Your task to perform on an android device: Open notification settings Image 0: 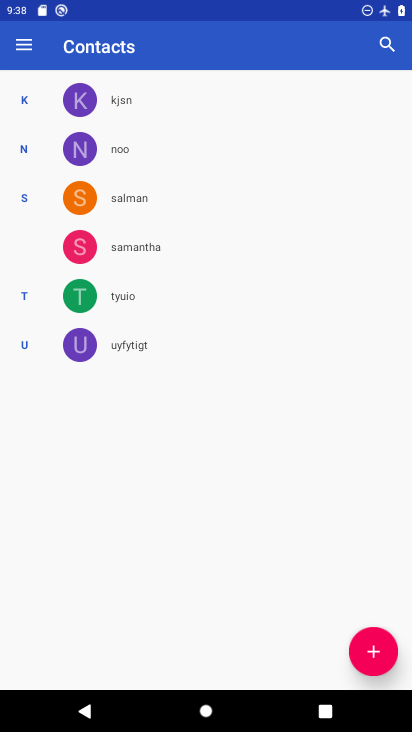
Step 0: drag from (164, 12) to (209, 555)
Your task to perform on an android device: Open notification settings Image 1: 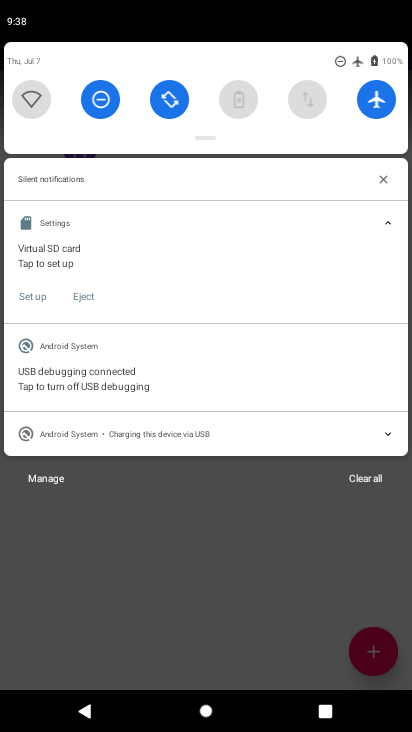
Step 1: drag from (198, 83) to (257, 685)
Your task to perform on an android device: Open notification settings Image 2: 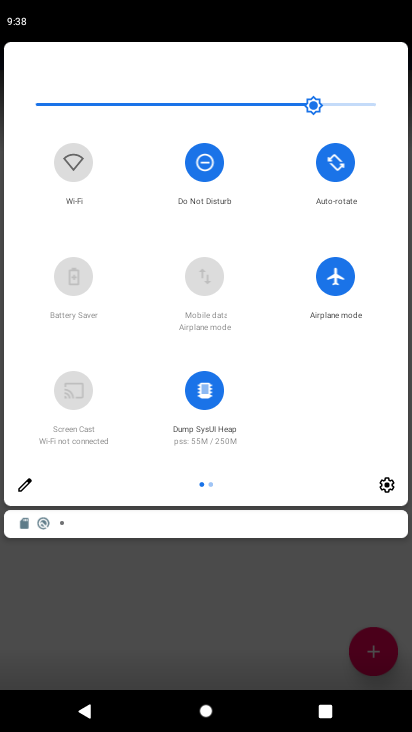
Step 2: click (387, 476)
Your task to perform on an android device: Open notification settings Image 3: 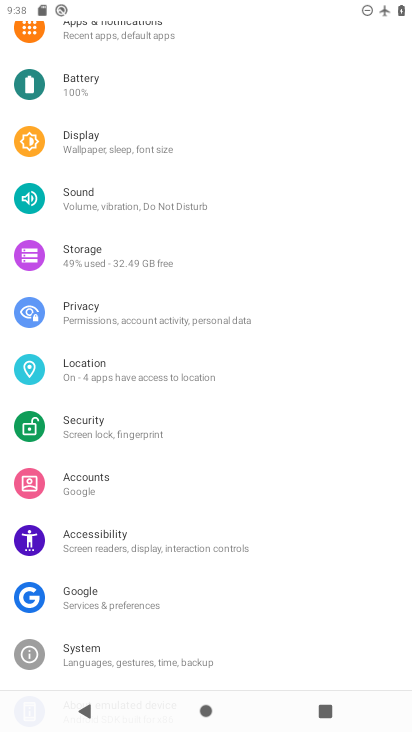
Step 3: click (144, 36)
Your task to perform on an android device: Open notification settings Image 4: 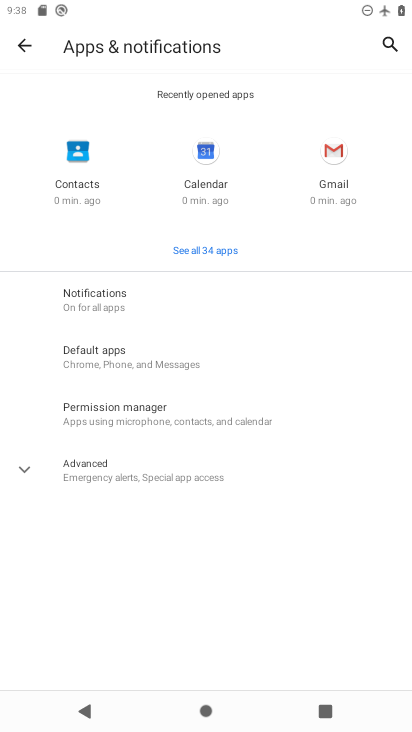
Step 4: task complete